Your task to perform on an android device: When is my next meeting? Image 0: 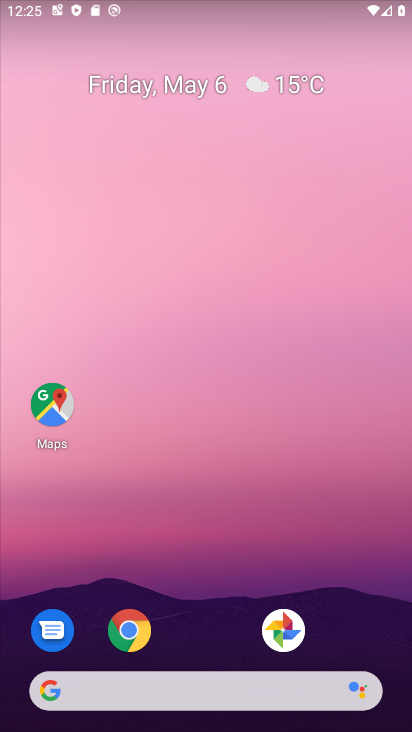
Step 0: click (146, 623)
Your task to perform on an android device: When is my next meeting? Image 1: 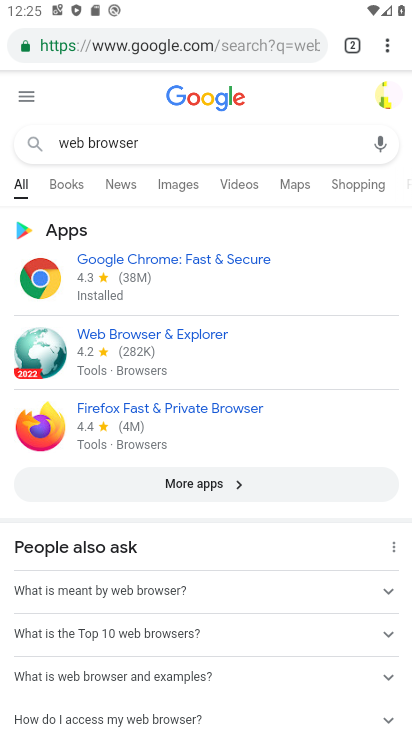
Step 1: click (183, 47)
Your task to perform on an android device: When is my next meeting? Image 2: 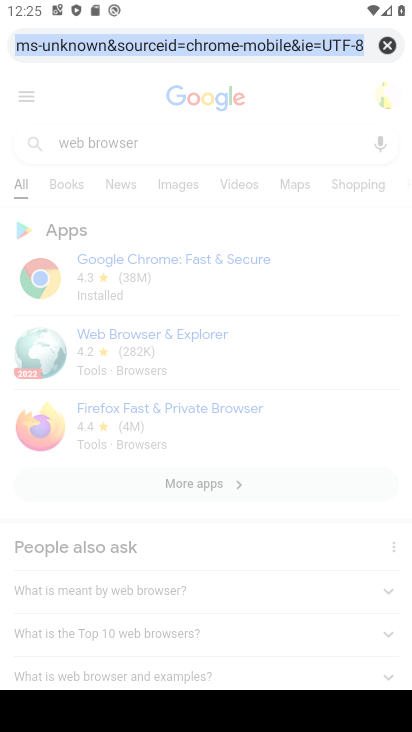
Step 2: click (388, 49)
Your task to perform on an android device: When is my next meeting? Image 3: 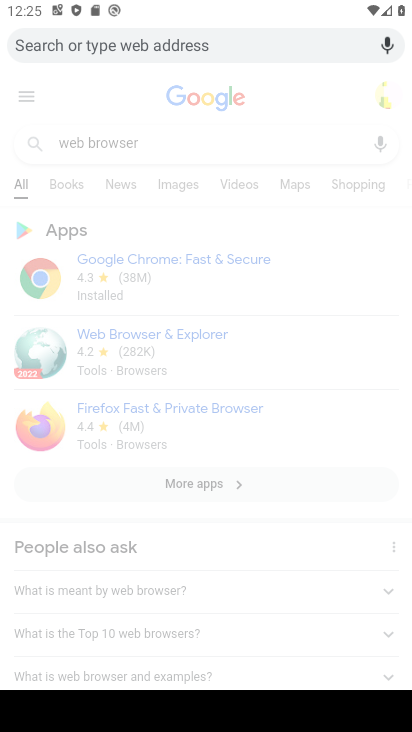
Step 3: type "When is my next meeting?"
Your task to perform on an android device: When is my next meeting? Image 4: 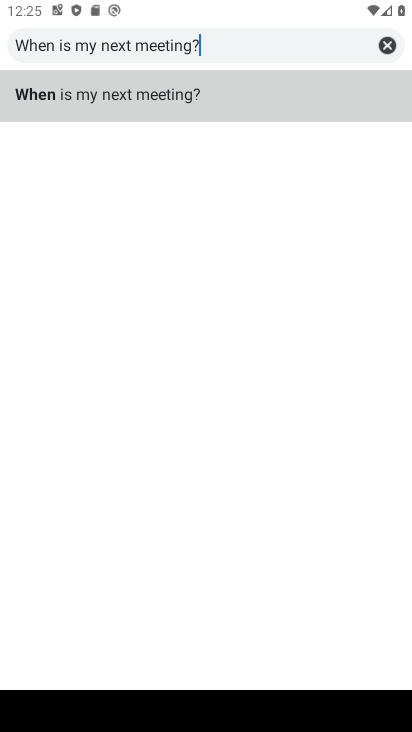
Step 4: press home button
Your task to perform on an android device: When is my next meeting? Image 5: 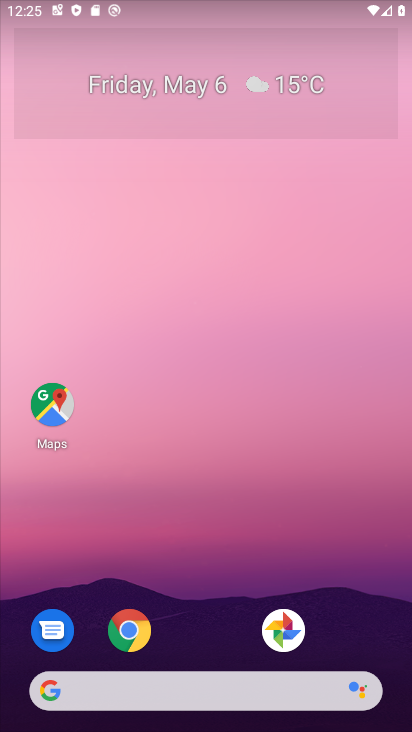
Step 5: drag from (176, 596) to (139, 42)
Your task to perform on an android device: When is my next meeting? Image 6: 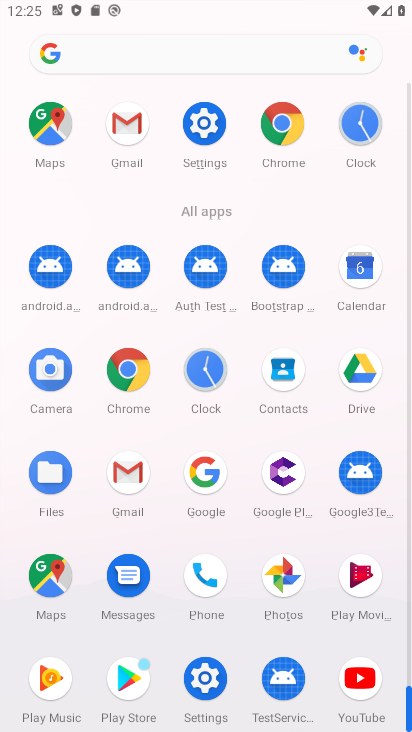
Step 6: click (347, 275)
Your task to perform on an android device: When is my next meeting? Image 7: 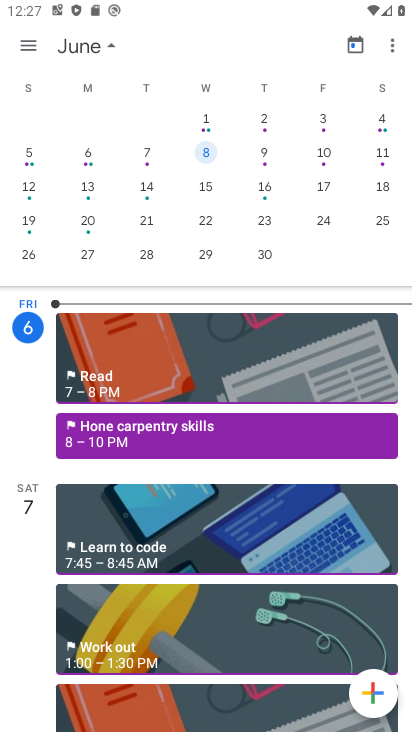
Step 7: click (88, 48)
Your task to perform on an android device: When is my next meeting? Image 8: 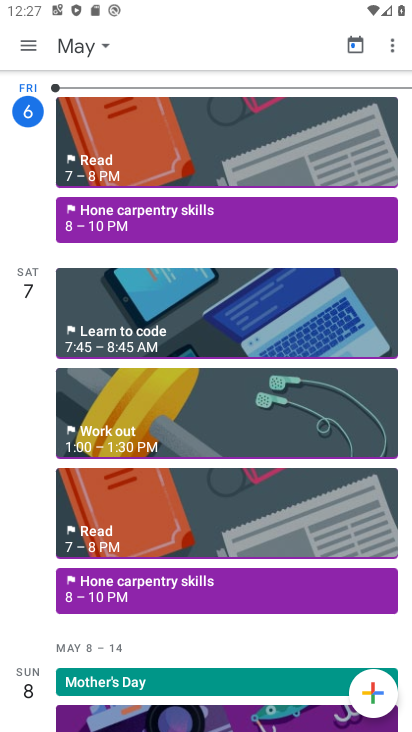
Step 8: click (112, 41)
Your task to perform on an android device: When is my next meeting? Image 9: 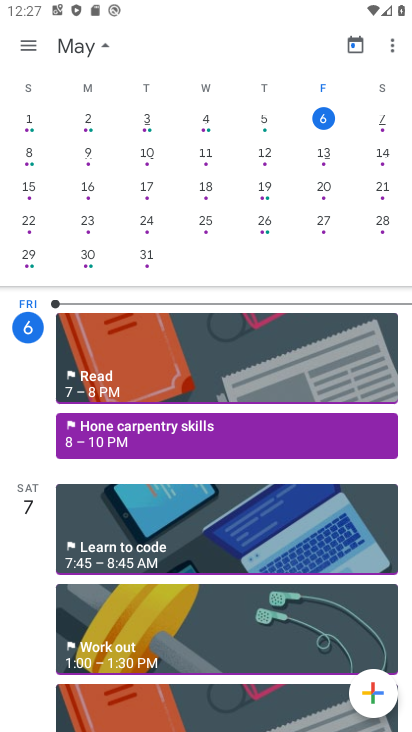
Step 9: task complete